Your task to perform on an android device: clear history in the chrome app Image 0: 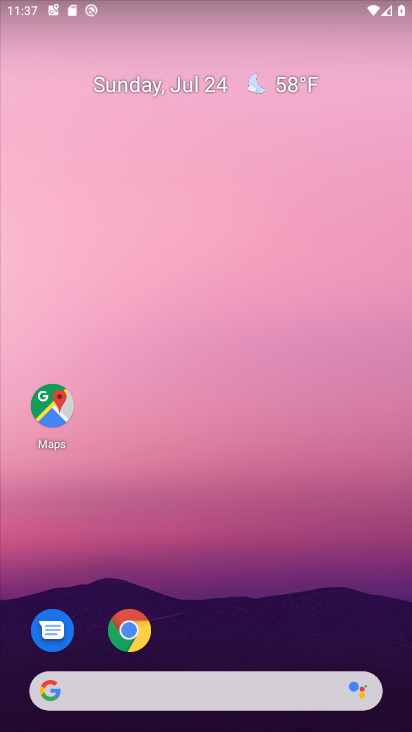
Step 0: click (133, 634)
Your task to perform on an android device: clear history in the chrome app Image 1: 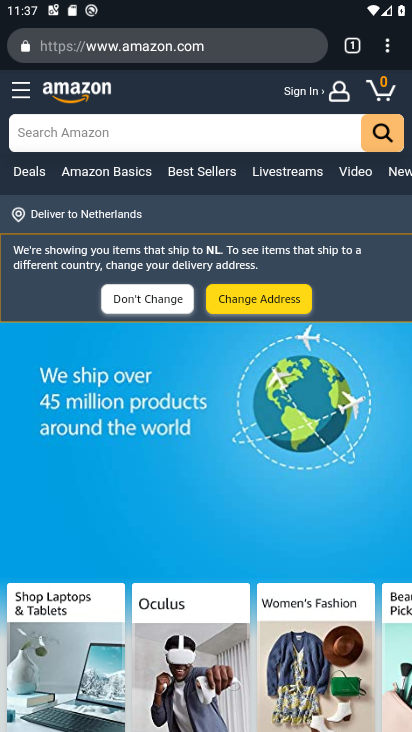
Step 1: click (389, 50)
Your task to perform on an android device: clear history in the chrome app Image 2: 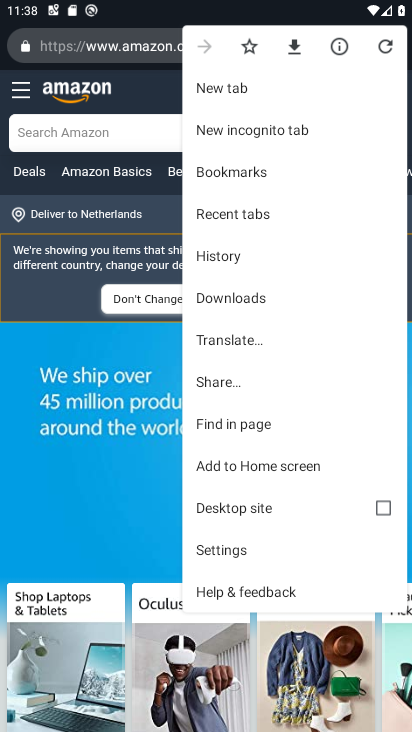
Step 2: click (230, 256)
Your task to perform on an android device: clear history in the chrome app Image 3: 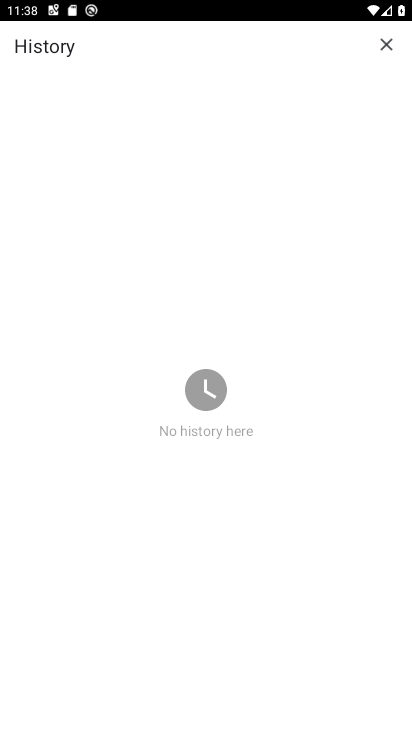
Step 3: task complete